Your task to perform on an android device: Go to settings Image 0: 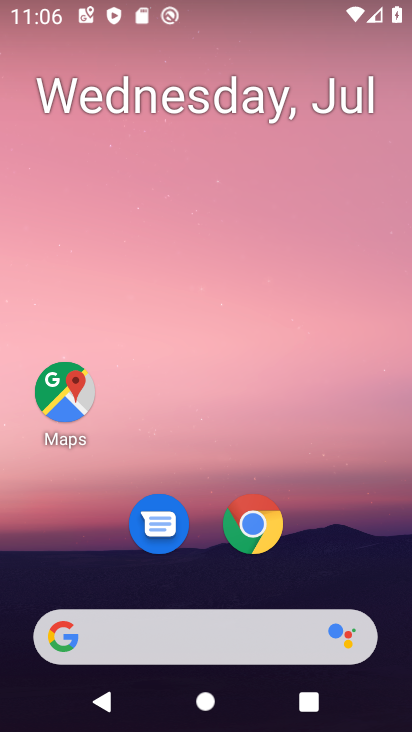
Step 0: press home button
Your task to perform on an android device: Go to settings Image 1: 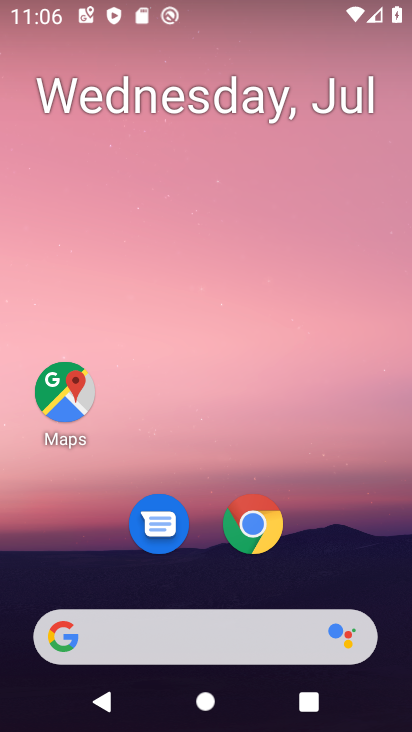
Step 1: drag from (164, 625) to (261, 176)
Your task to perform on an android device: Go to settings Image 2: 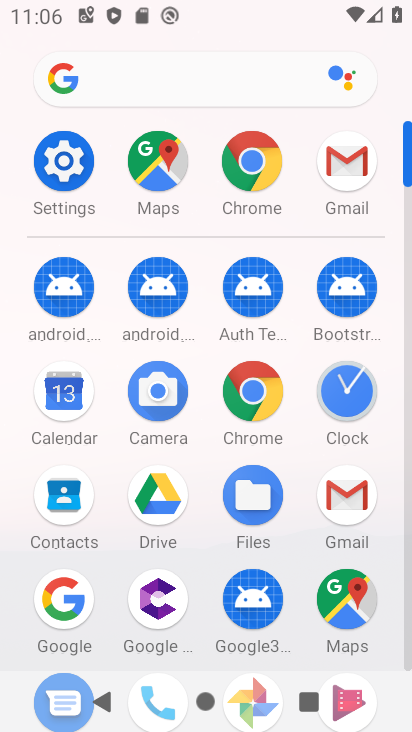
Step 2: click (59, 168)
Your task to perform on an android device: Go to settings Image 3: 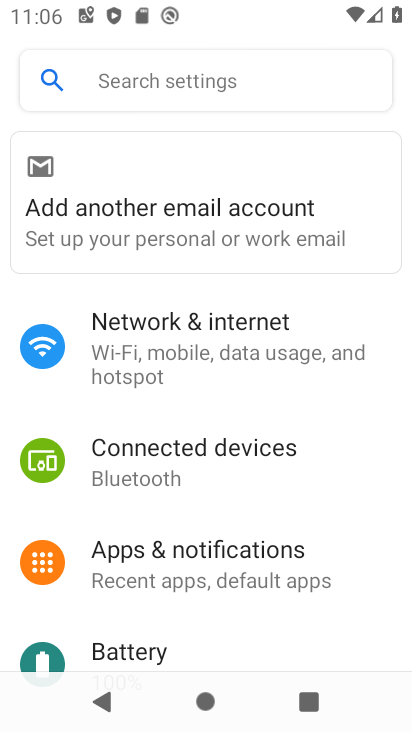
Step 3: task complete